Your task to perform on an android device: allow notifications from all sites in the chrome app Image 0: 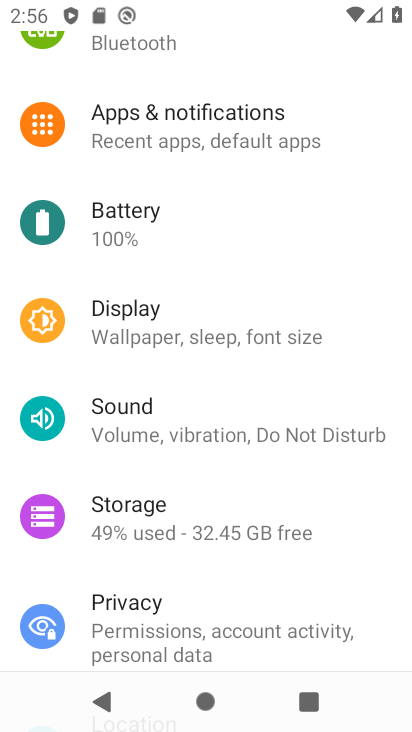
Step 0: press home button
Your task to perform on an android device: allow notifications from all sites in the chrome app Image 1: 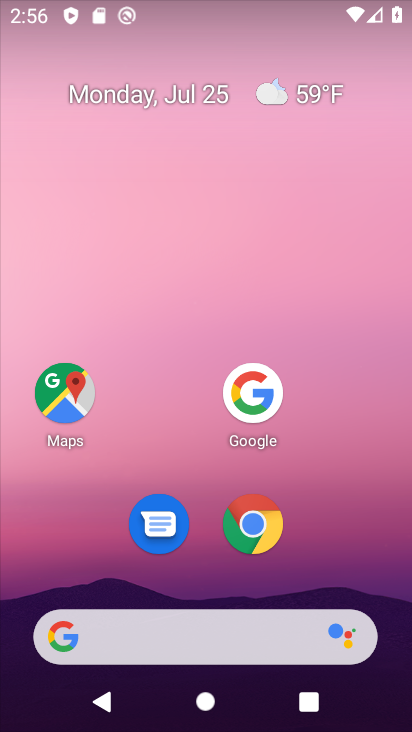
Step 1: click (247, 519)
Your task to perform on an android device: allow notifications from all sites in the chrome app Image 2: 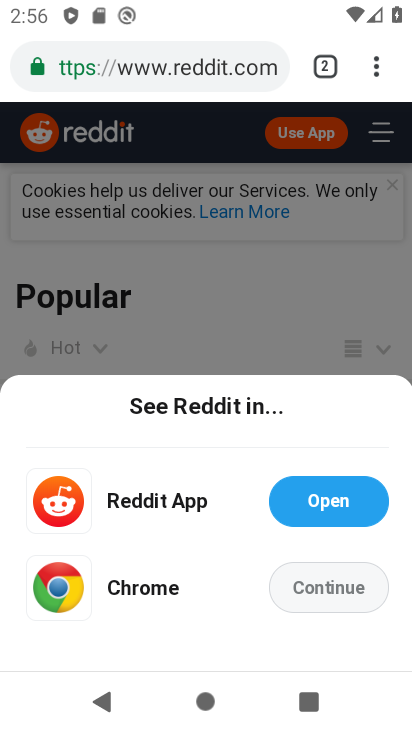
Step 2: drag from (381, 60) to (226, 522)
Your task to perform on an android device: allow notifications from all sites in the chrome app Image 3: 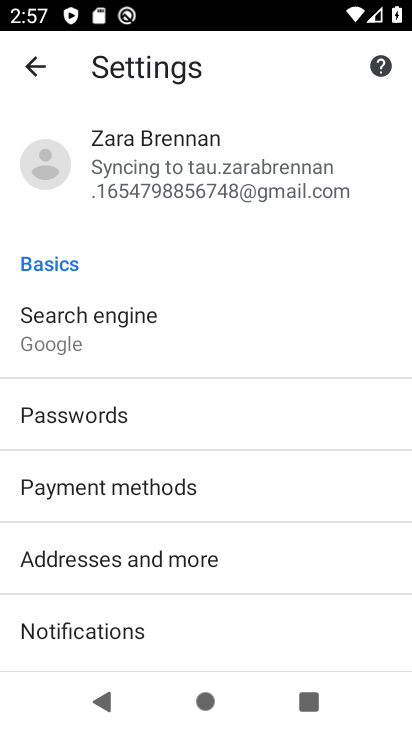
Step 3: drag from (240, 627) to (275, 232)
Your task to perform on an android device: allow notifications from all sites in the chrome app Image 4: 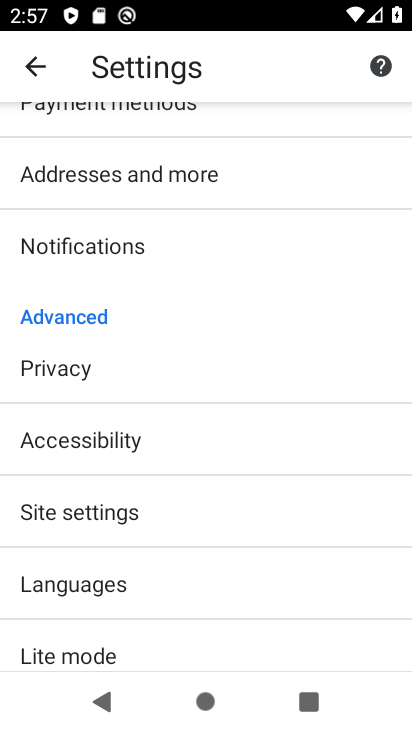
Step 4: click (97, 518)
Your task to perform on an android device: allow notifications from all sites in the chrome app Image 5: 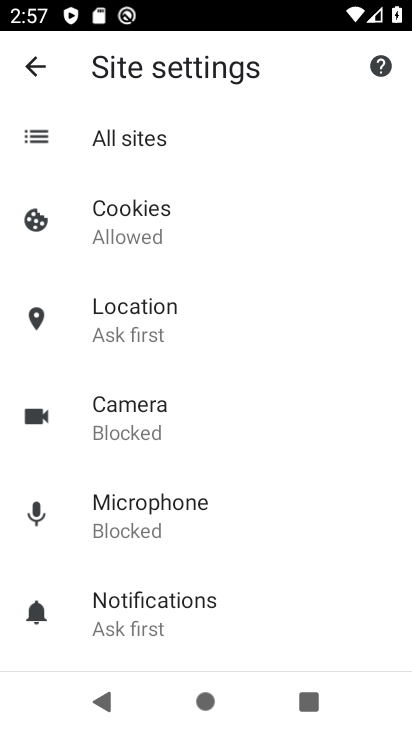
Step 5: drag from (219, 621) to (293, 230)
Your task to perform on an android device: allow notifications from all sites in the chrome app Image 6: 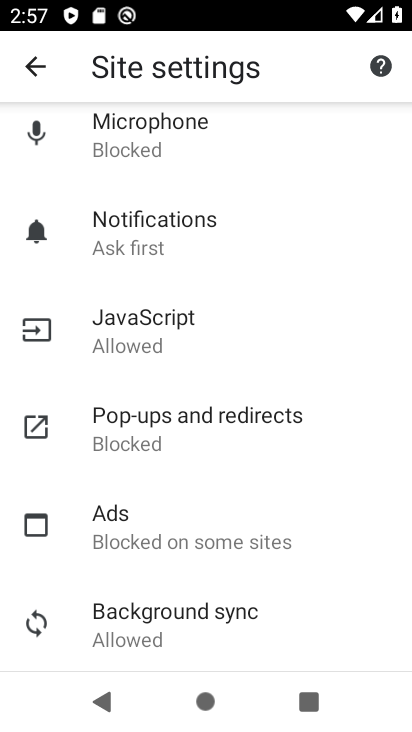
Step 6: click (154, 235)
Your task to perform on an android device: allow notifications from all sites in the chrome app Image 7: 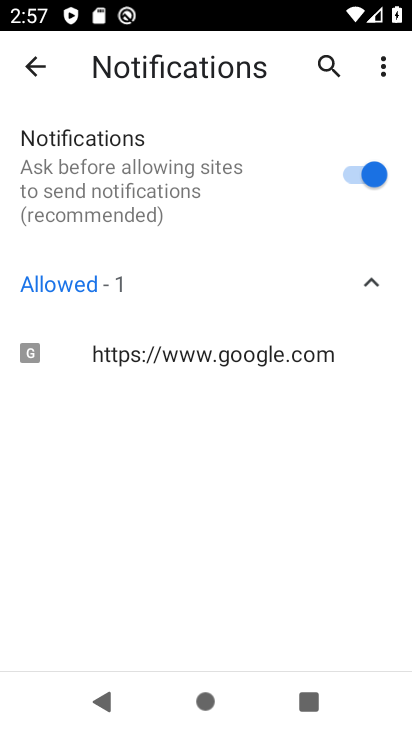
Step 7: task complete